Your task to perform on an android device: empty trash in google photos Image 0: 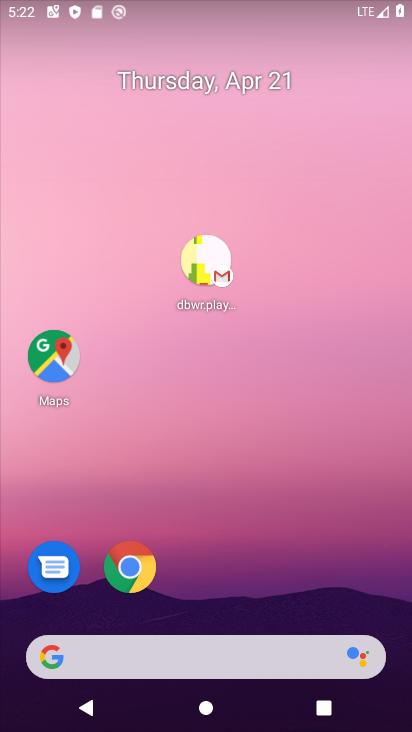
Step 0: drag from (224, 608) to (318, 81)
Your task to perform on an android device: empty trash in google photos Image 1: 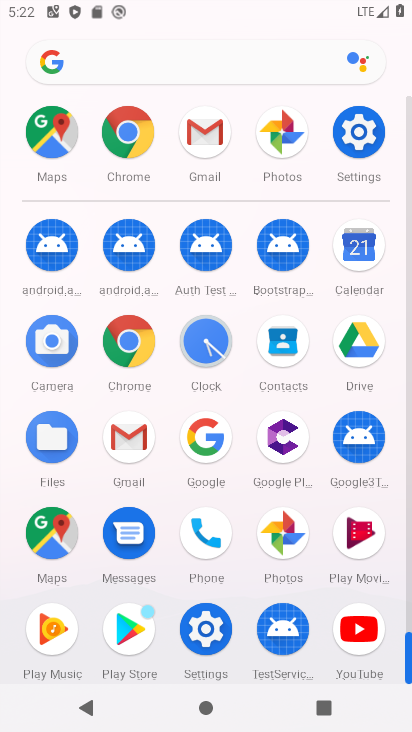
Step 1: click (287, 544)
Your task to perform on an android device: empty trash in google photos Image 2: 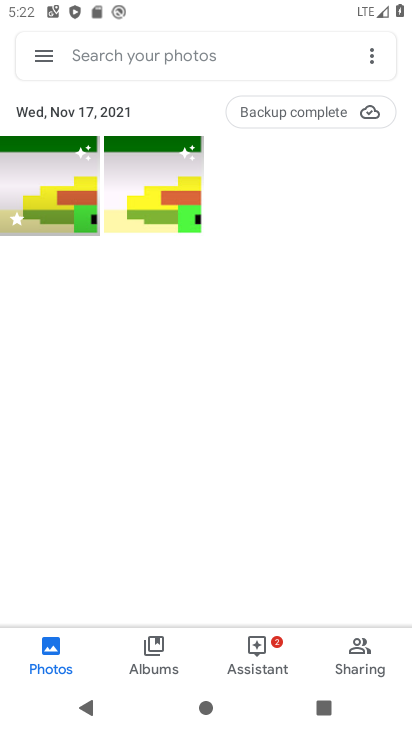
Step 2: click (36, 56)
Your task to perform on an android device: empty trash in google photos Image 3: 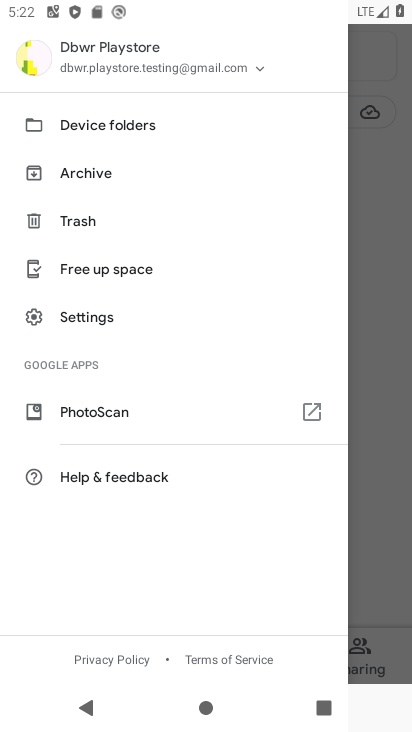
Step 3: click (80, 227)
Your task to perform on an android device: empty trash in google photos Image 4: 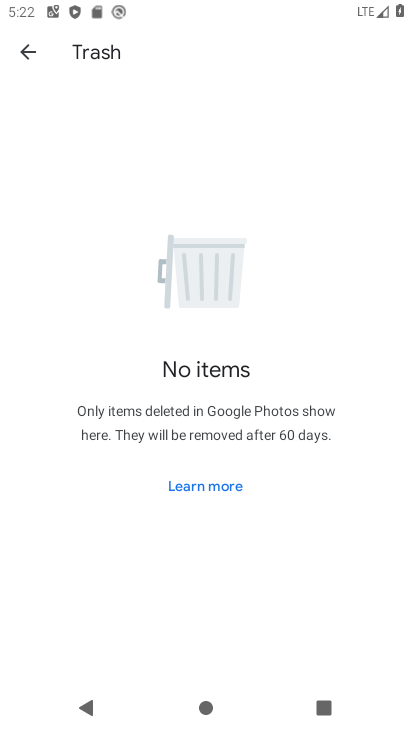
Step 4: task complete